Your task to perform on an android device: Open calendar and show me the second week of next month Image 0: 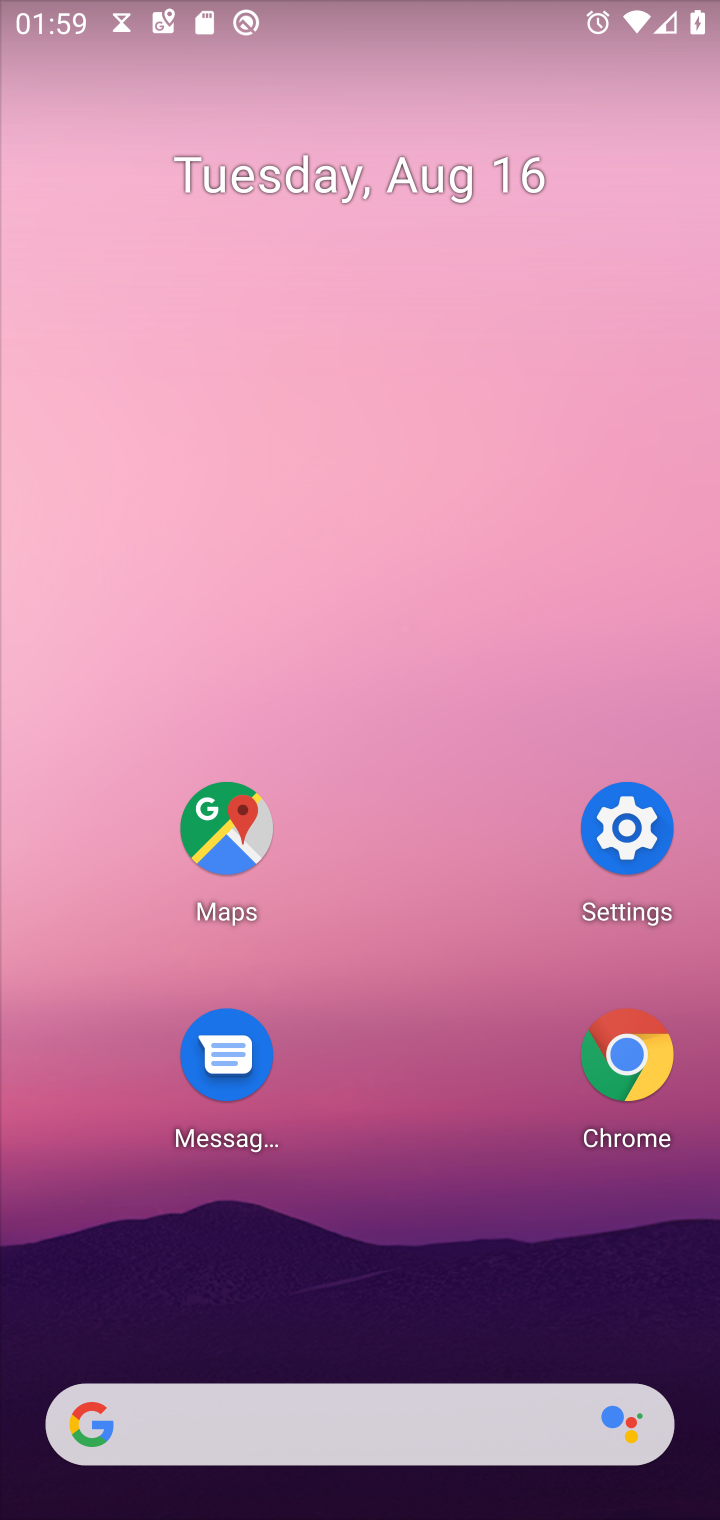
Step 0: drag from (416, 955) to (541, 312)
Your task to perform on an android device: Open calendar and show me the second week of next month Image 1: 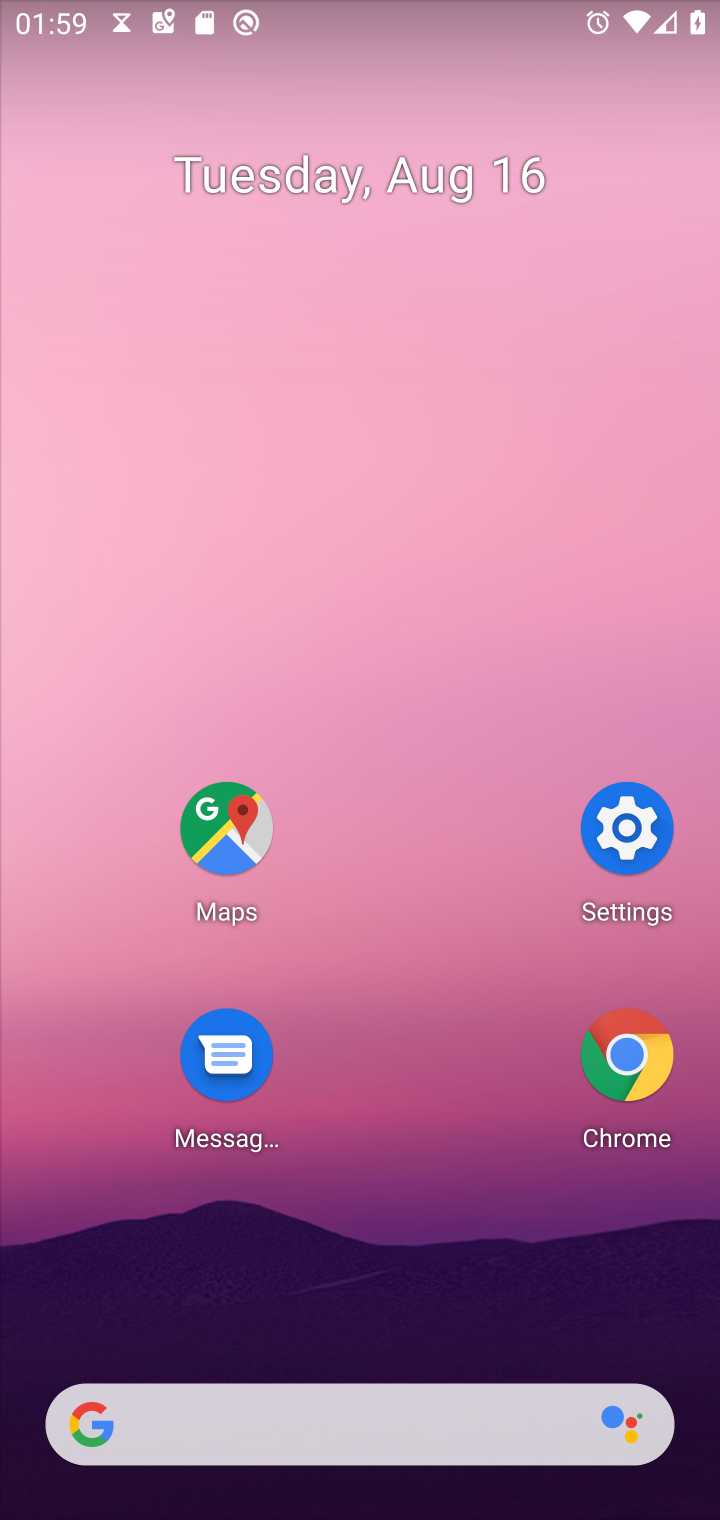
Step 1: drag from (413, 1379) to (678, 283)
Your task to perform on an android device: Open calendar and show me the second week of next month Image 2: 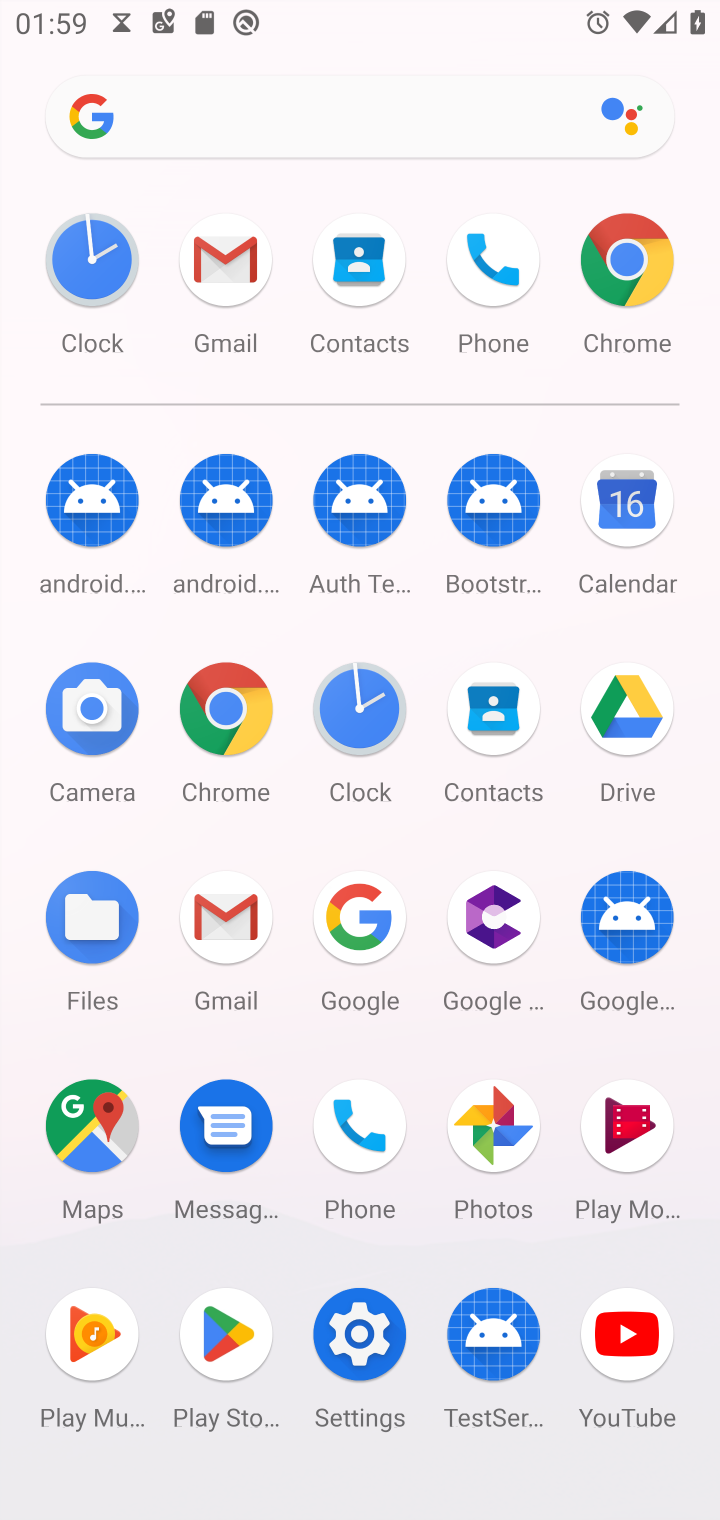
Step 2: click (622, 502)
Your task to perform on an android device: Open calendar and show me the second week of next month Image 3: 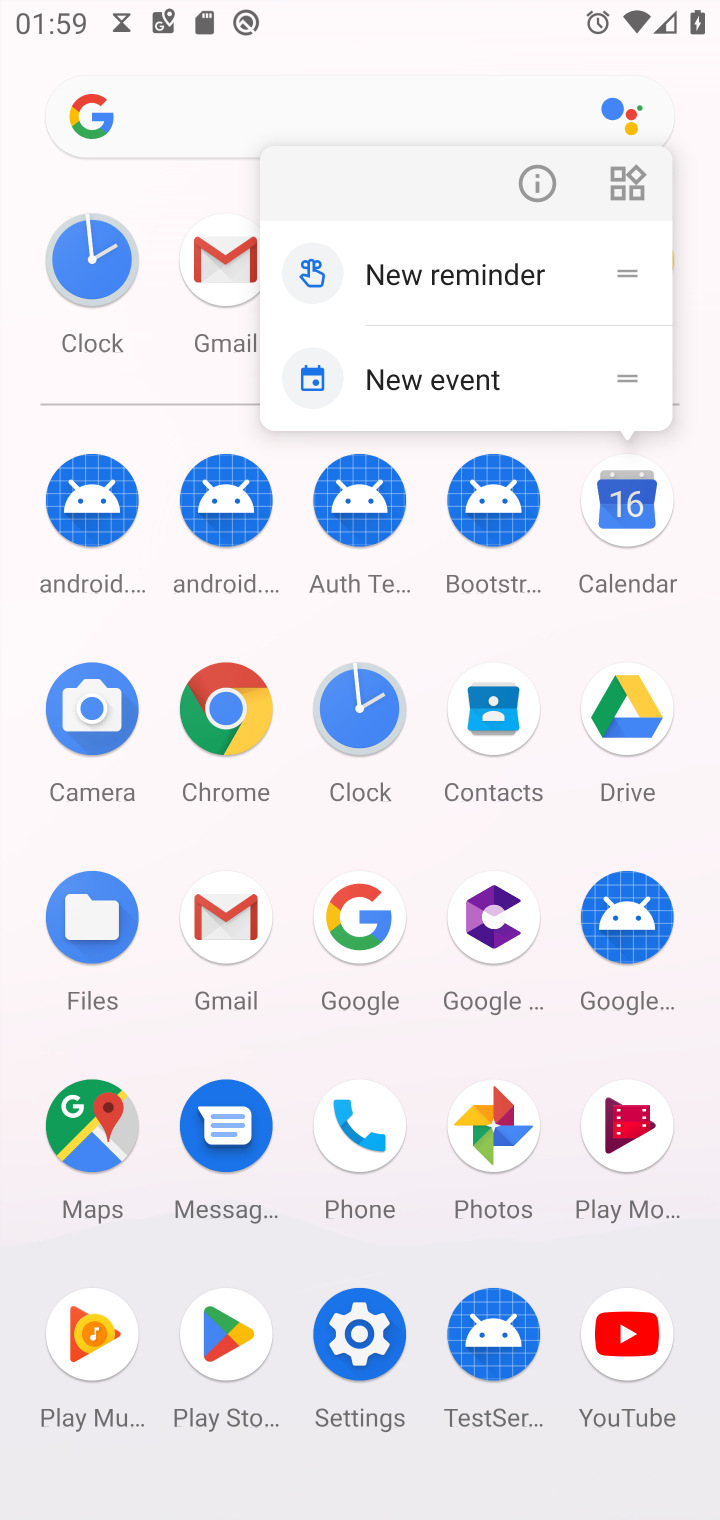
Step 3: click (621, 509)
Your task to perform on an android device: Open calendar and show me the second week of next month Image 4: 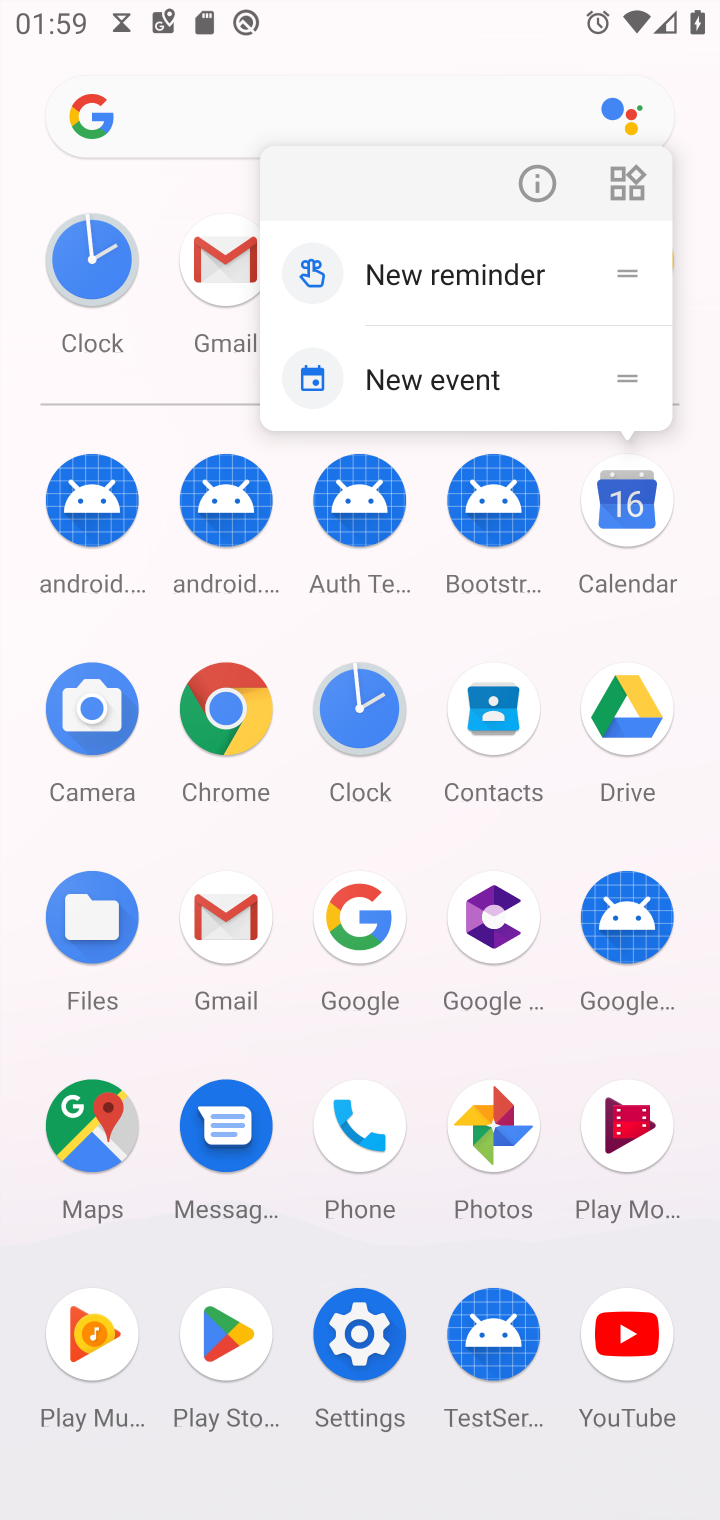
Step 4: click (621, 509)
Your task to perform on an android device: Open calendar and show me the second week of next month Image 5: 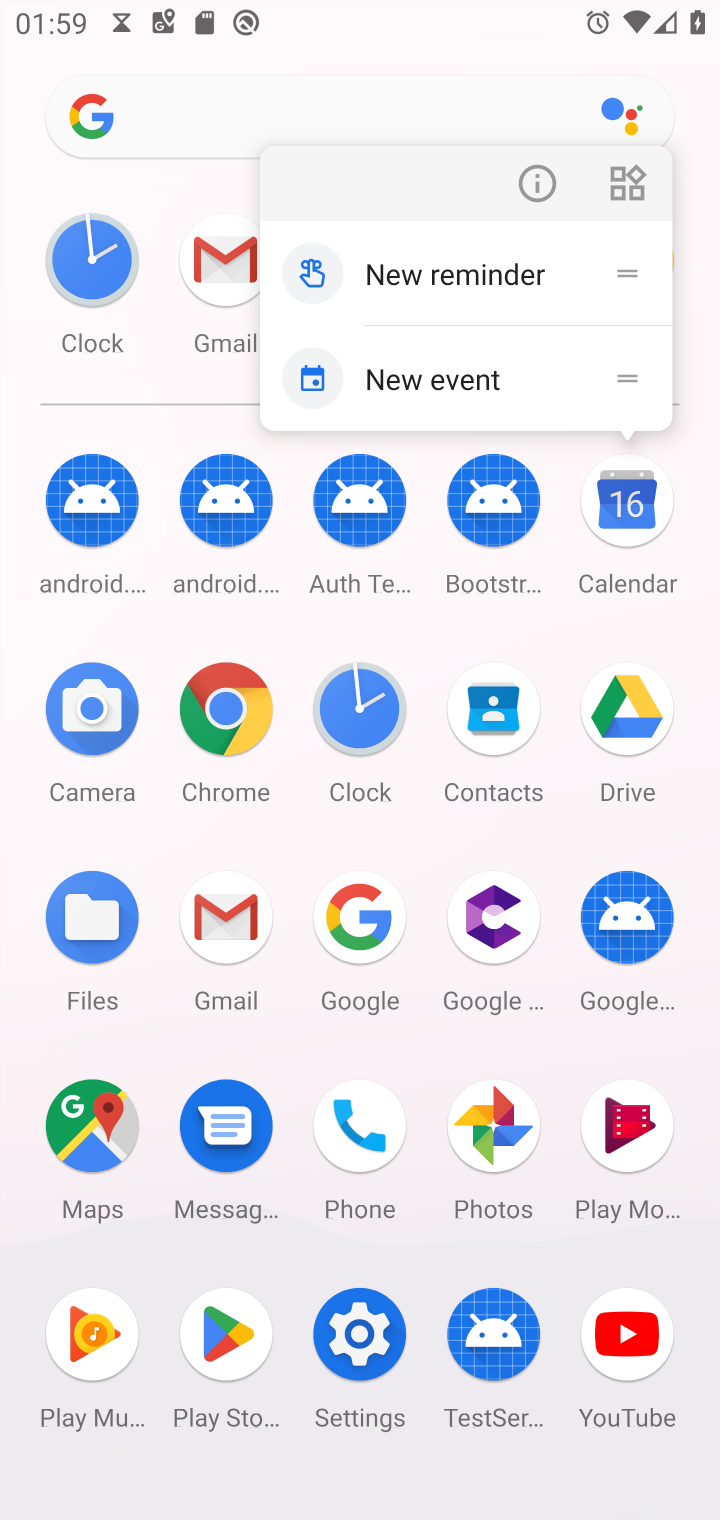
Step 5: click (621, 513)
Your task to perform on an android device: Open calendar and show me the second week of next month Image 6: 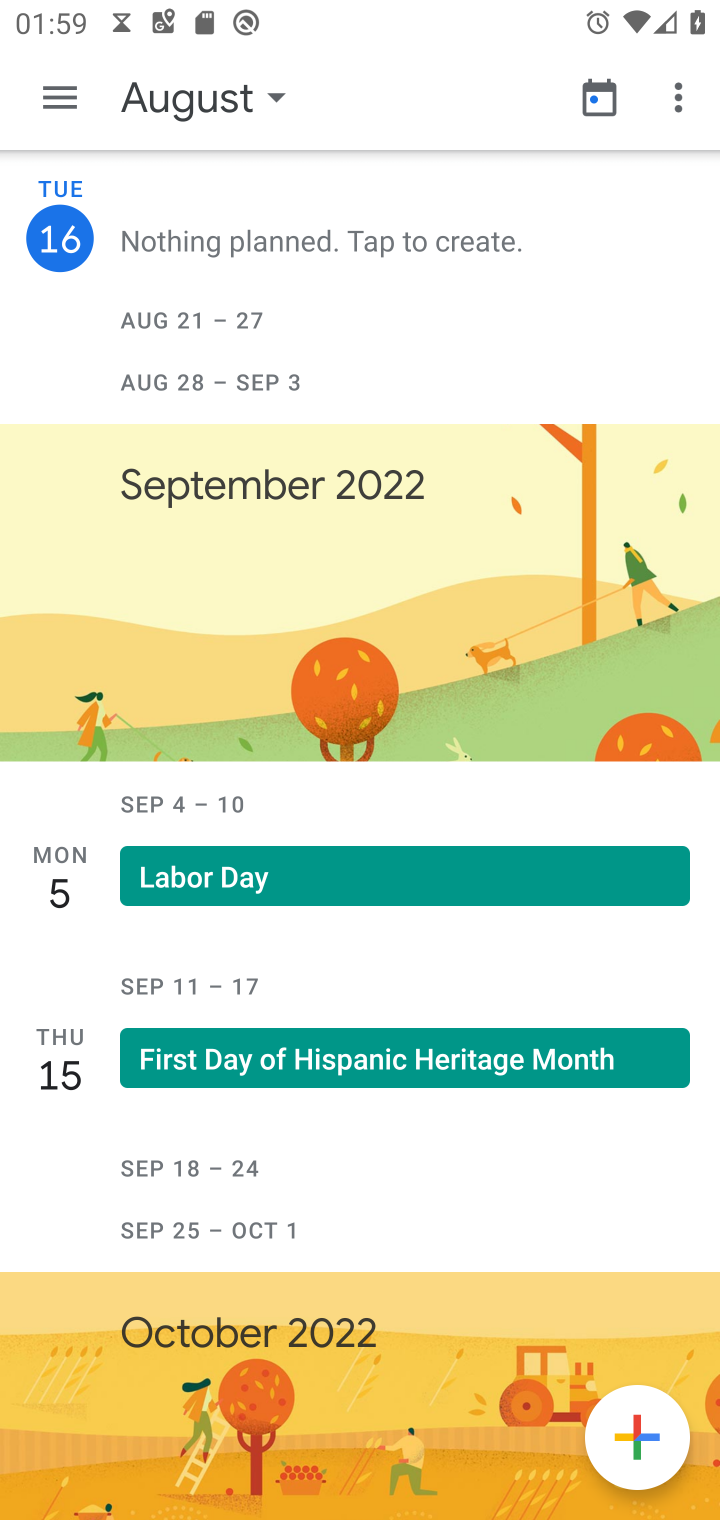
Step 6: click (183, 96)
Your task to perform on an android device: Open calendar and show me the second week of next month Image 7: 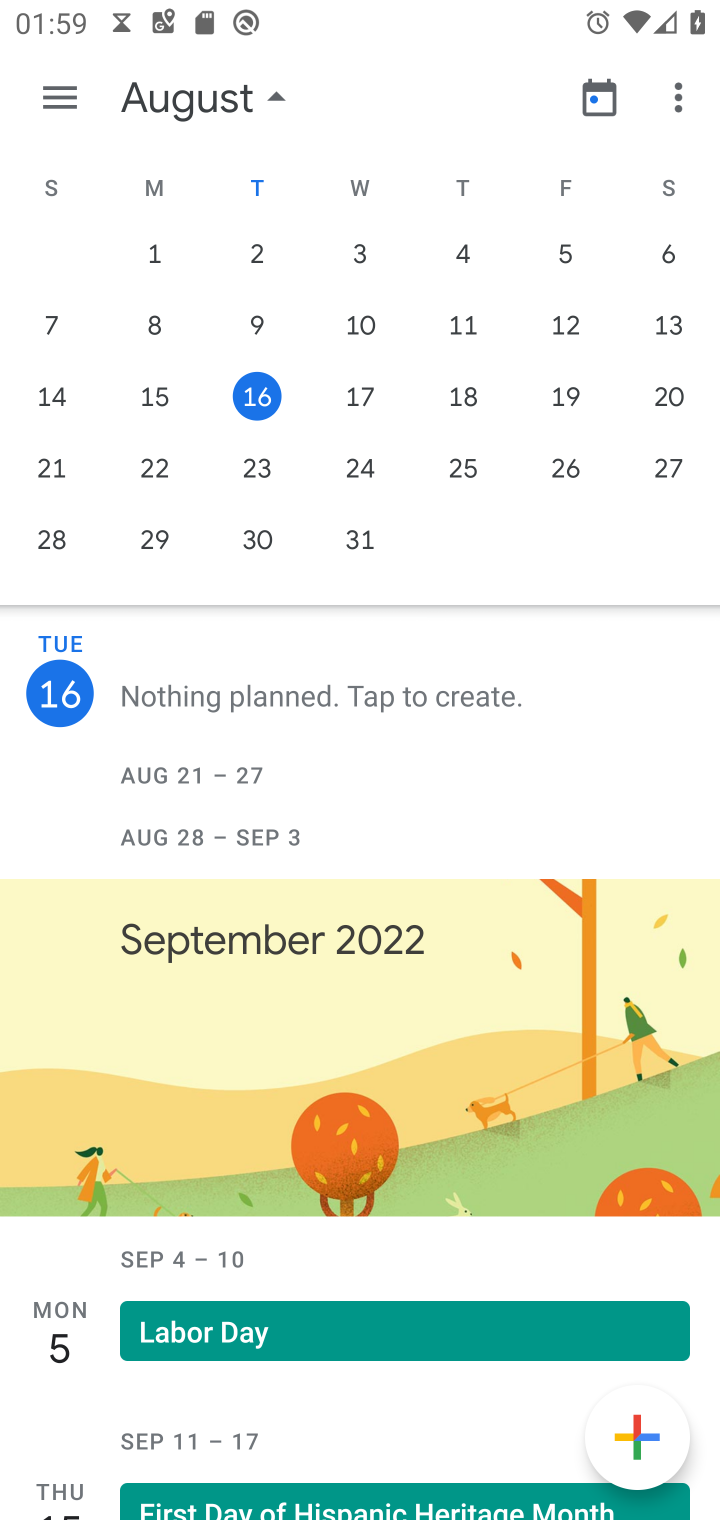
Step 7: drag from (667, 359) to (12, 345)
Your task to perform on an android device: Open calendar and show me the second week of next month Image 8: 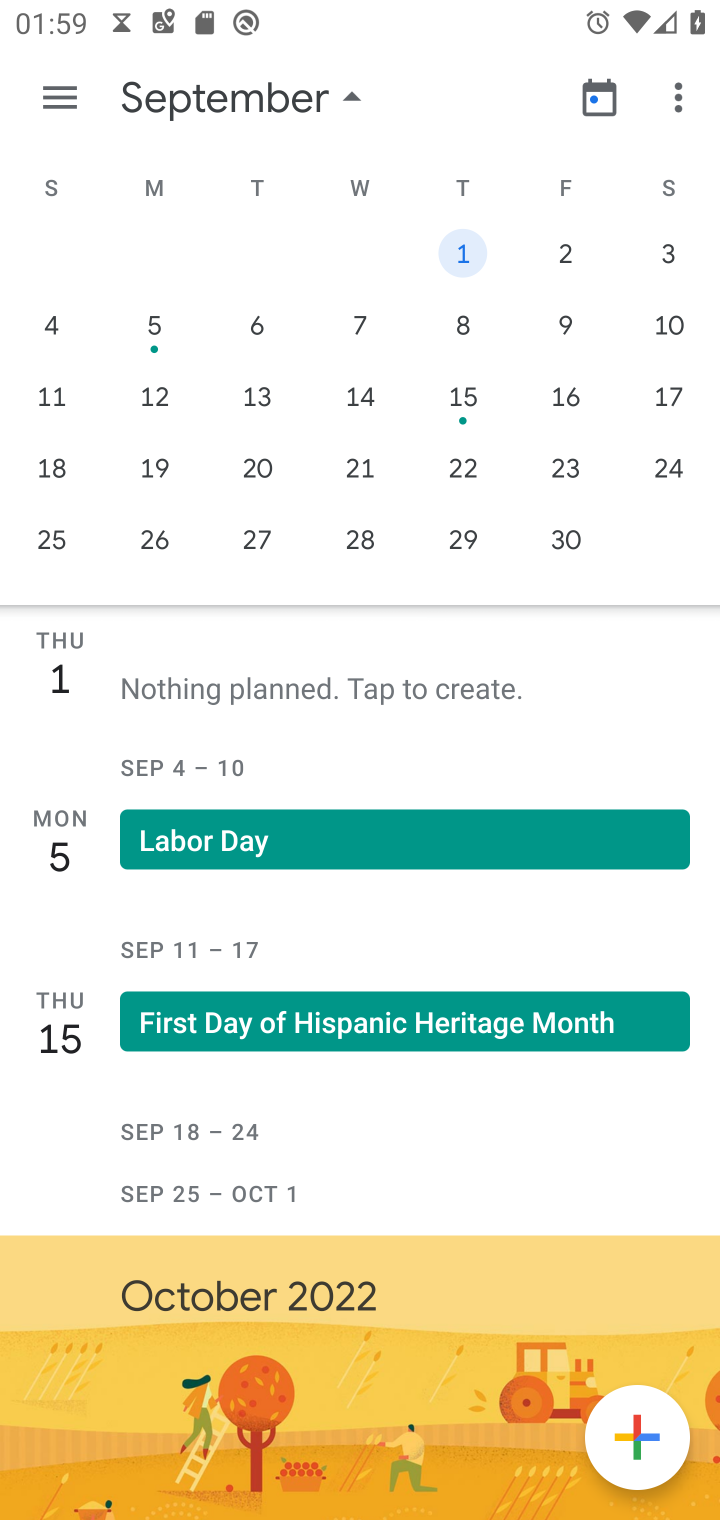
Step 8: click (47, 322)
Your task to perform on an android device: Open calendar and show me the second week of next month Image 9: 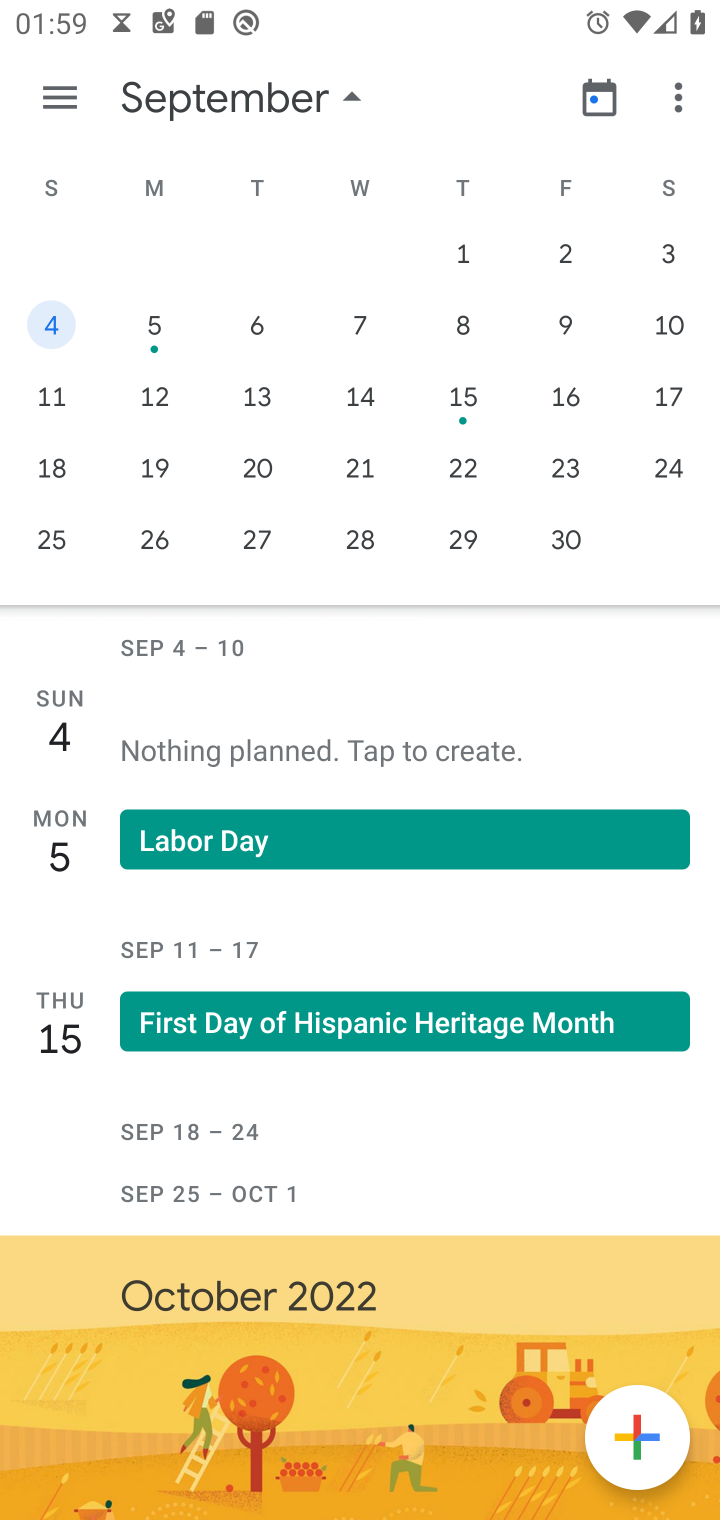
Step 9: click (64, 85)
Your task to perform on an android device: Open calendar and show me the second week of next month Image 10: 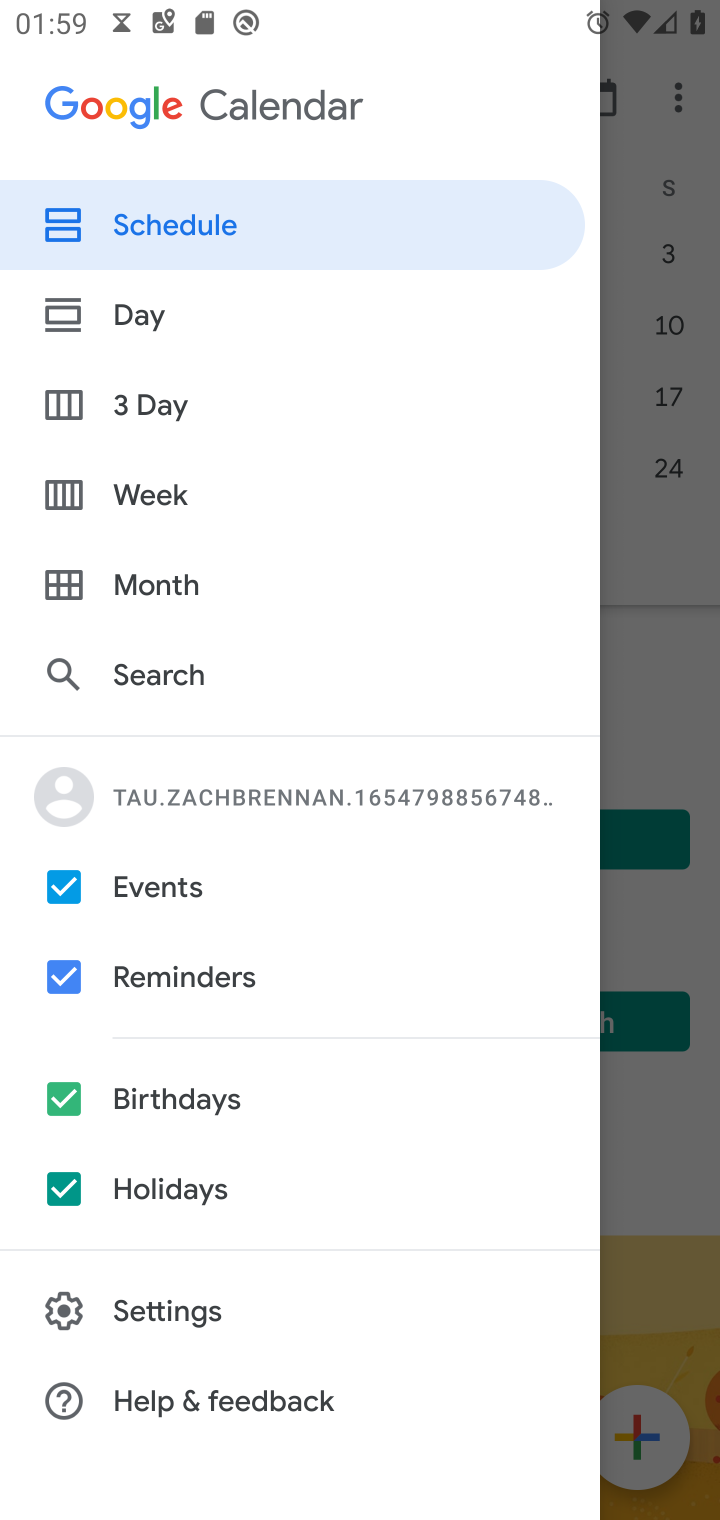
Step 10: click (160, 486)
Your task to perform on an android device: Open calendar and show me the second week of next month Image 11: 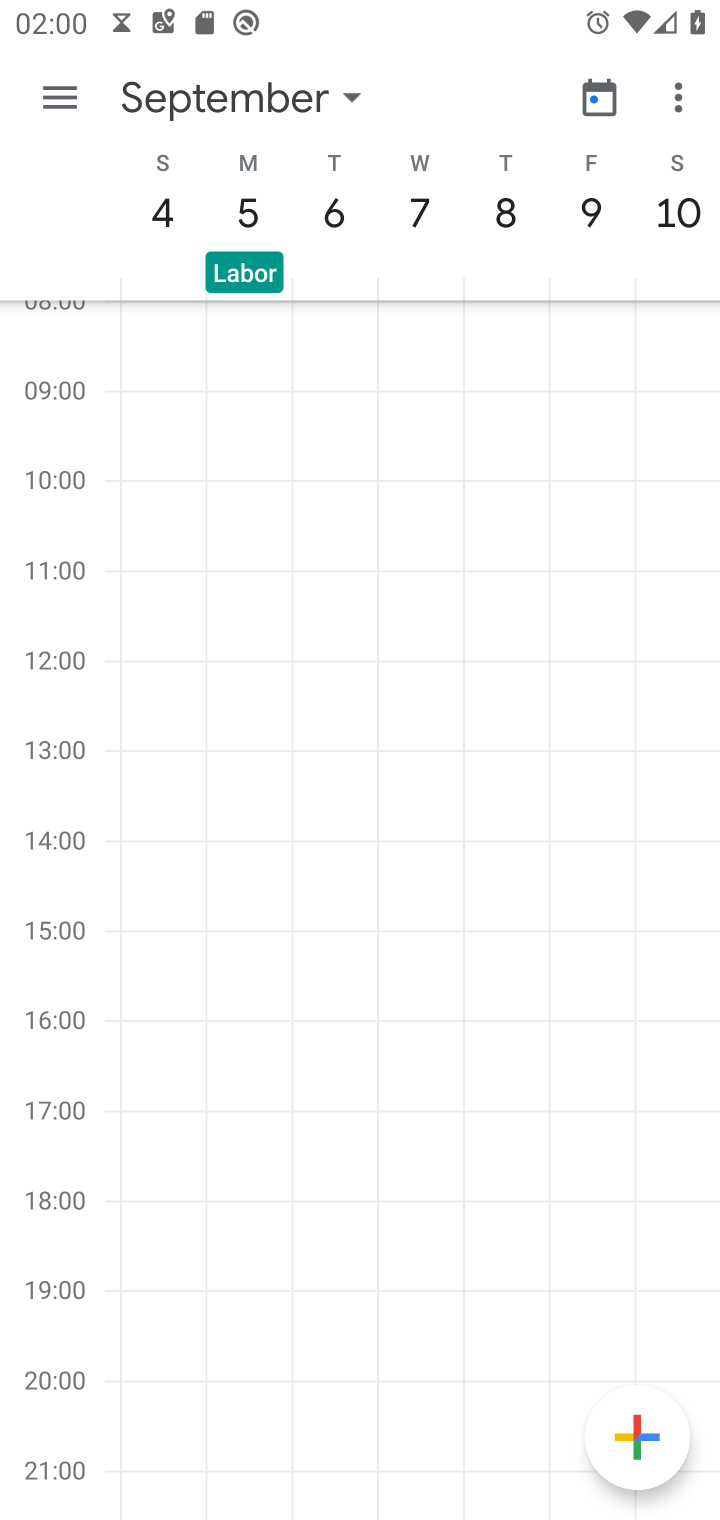
Step 11: task complete